Your task to perform on an android device: Open calendar and show me the second week of next month Image 0: 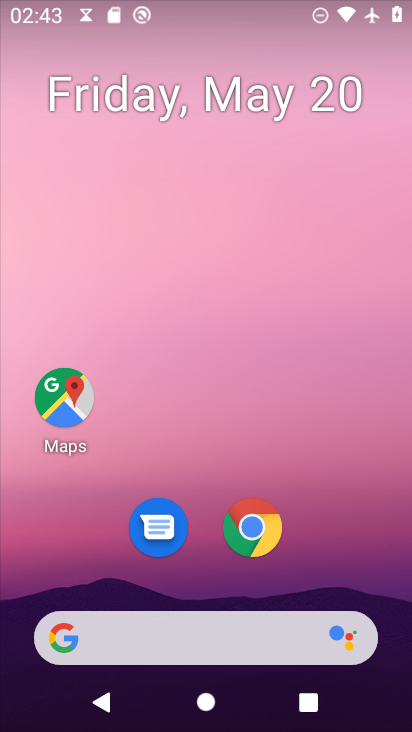
Step 0: press home button
Your task to perform on an android device: Open calendar and show me the second week of next month Image 1: 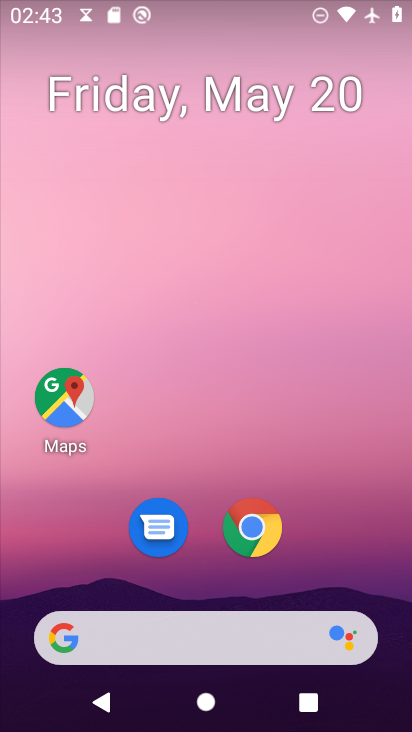
Step 1: drag from (143, 656) to (246, 207)
Your task to perform on an android device: Open calendar and show me the second week of next month Image 2: 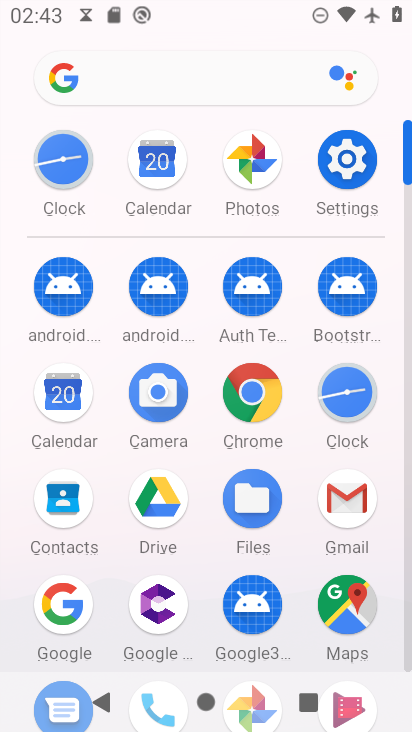
Step 2: click (55, 405)
Your task to perform on an android device: Open calendar and show me the second week of next month Image 3: 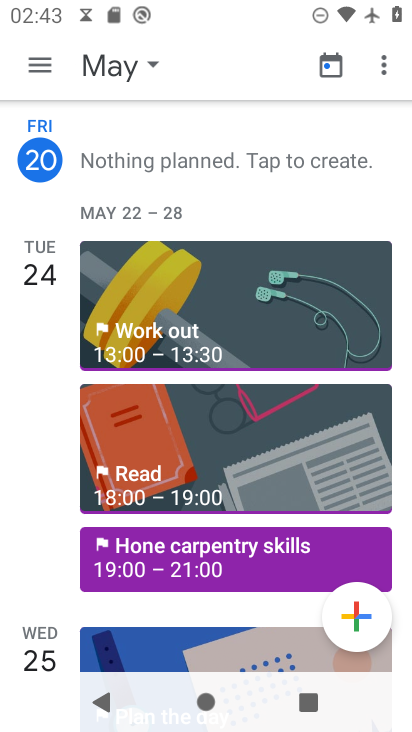
Step 3: click (116, 59)
Your task to perform on an android device: Open calendar and show me the second week of next month Image 4: 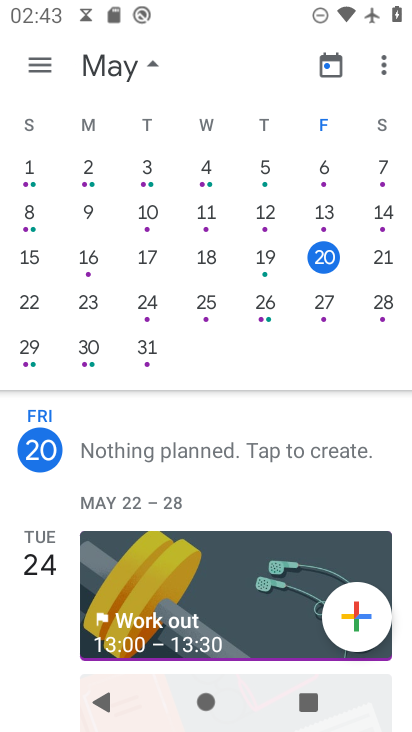
Step 4: drag from (375, 238) to (60, 255)
Your task to perform on an android device: Open calendar and show me the second week of next month Image 5: 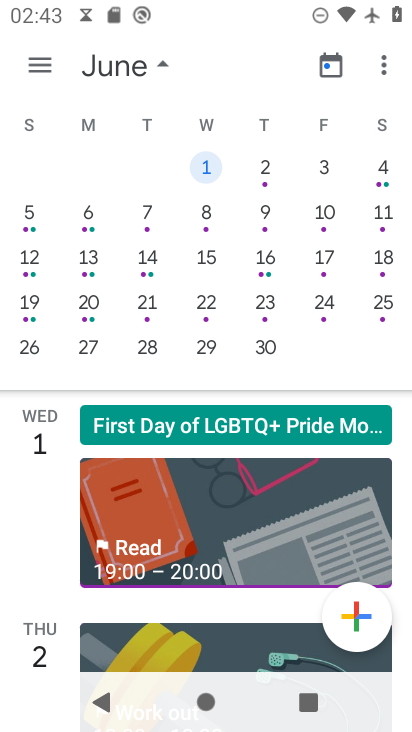
Step 5: click (33, 217)
Your task to perform on an android device: Open calendar and show me the second week of next month Image 6: 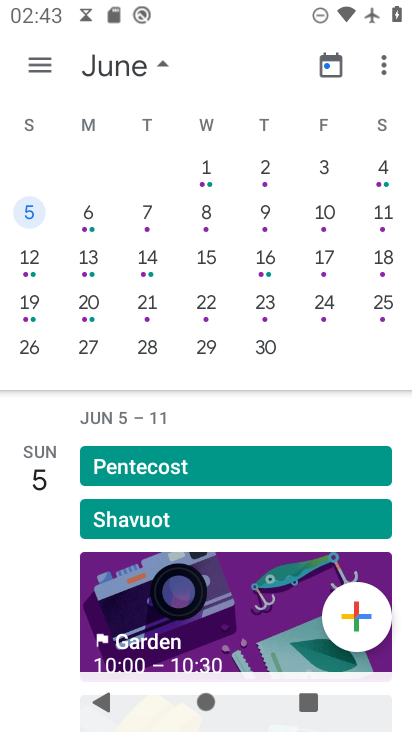
Step 6: click (33, 61)
Your task to perform on an android device: Open calendar and show me the second week of next month Image 7: 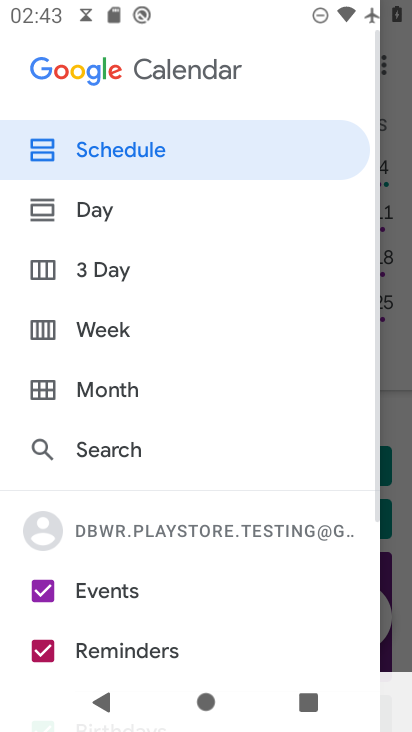
Step 7: click (99, 331)
Your task to perform on an android device: Open calendar and show me the second week of next month Image 8: 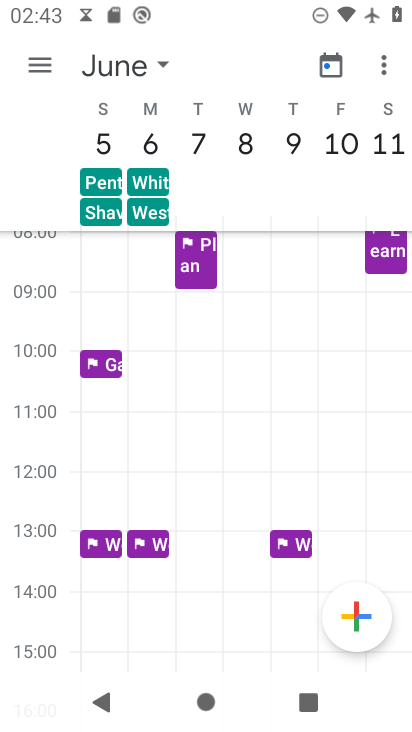
Step 8: click (42, 67)
Your task to perform on an android device: Open calendar and show me the second week of next month Image 9: 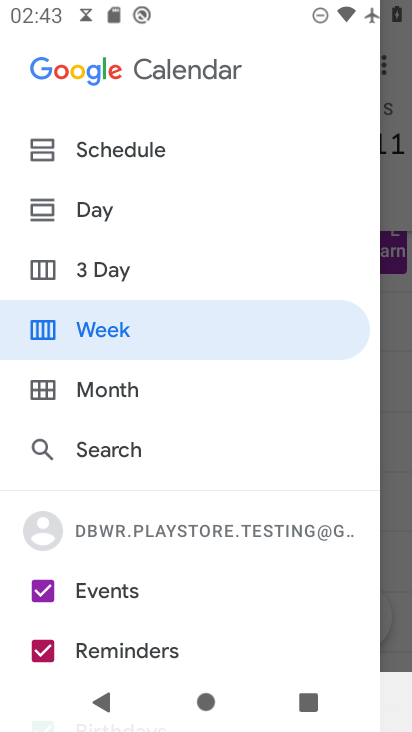
Step 9: click (92, 329)
Your task to perform on an android device: Open calendar and show me the second week of next month Image 10: 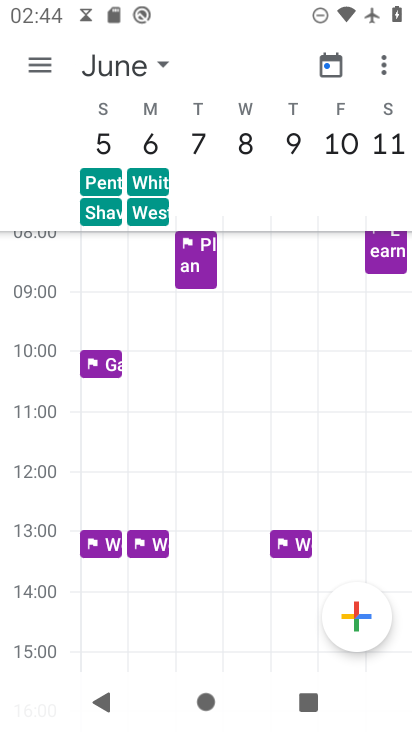
Step 10: task complete